Your task to perform on an android device: check out phone information Image 0: 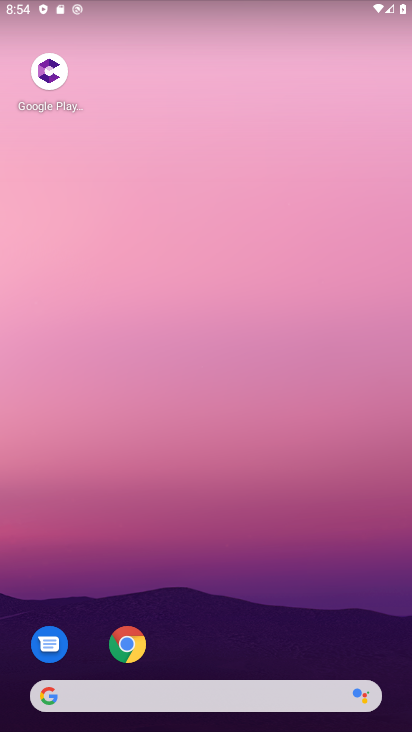
Step 0: drag from (253, 628) to (332, 29)
Your task to perform on an android device: check out phone information Image 1: 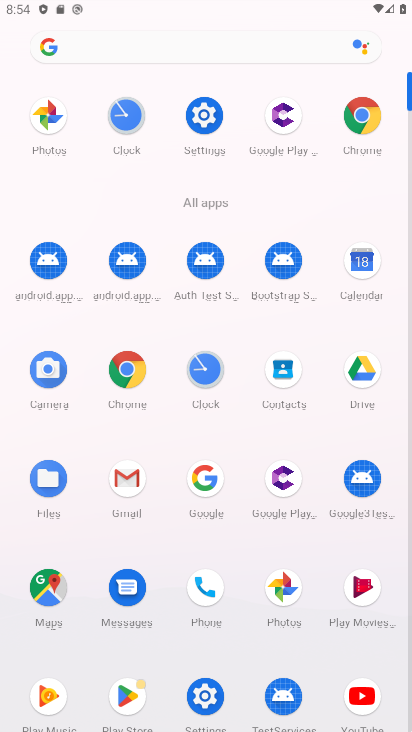
Step 1: click (209, 120)
Your task to perform on an android device: check out phone information Image 2: 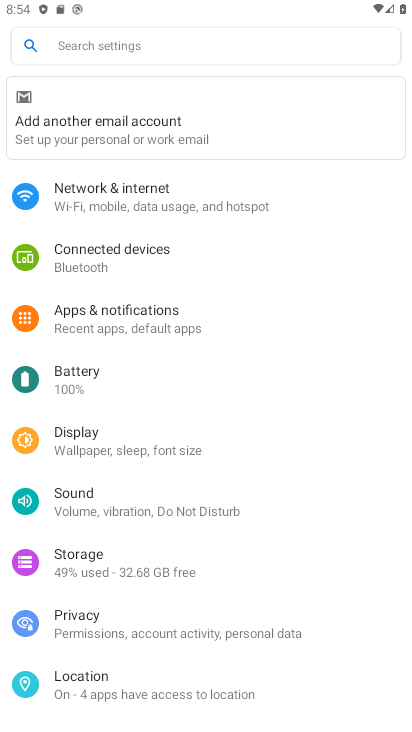
Step 2: drag from (167, 692) to (238, 19)
Your task to perform on an android device: check out phone information Image 3: 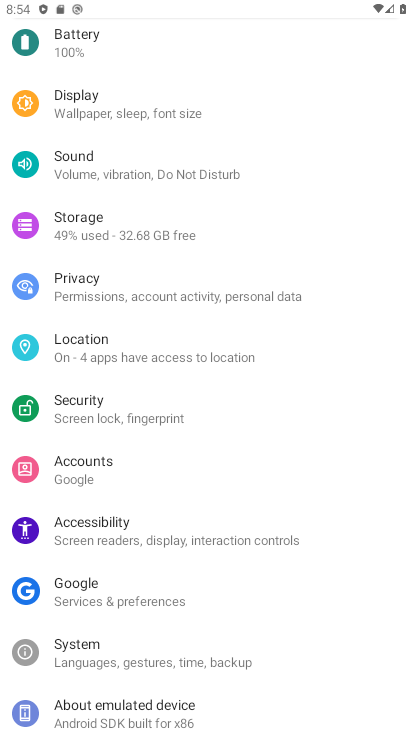
Step 3: drag from (196, 640) to (289, 20)
Your task to perform on an android device: check out phone information Image 4: 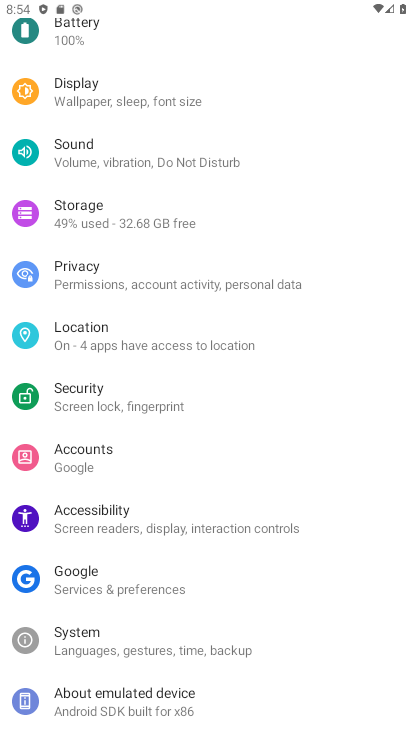
Step 4: click (129, 697)
Your task to perform on an android device: check out phone information Image 5: 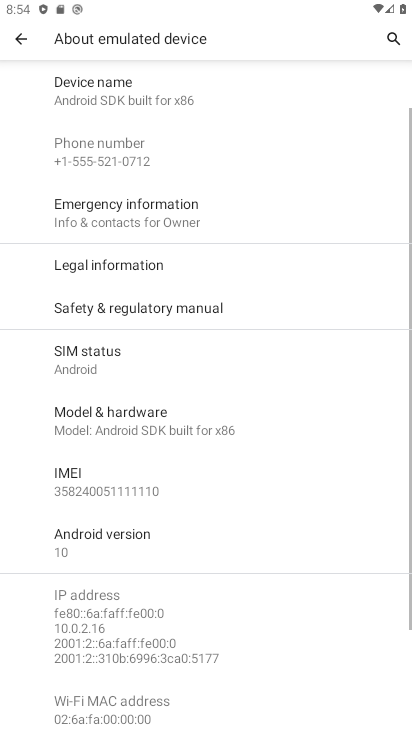
Step 5: task complete